Your task to perform on an android device: Go to Yahoo.com Image 0: 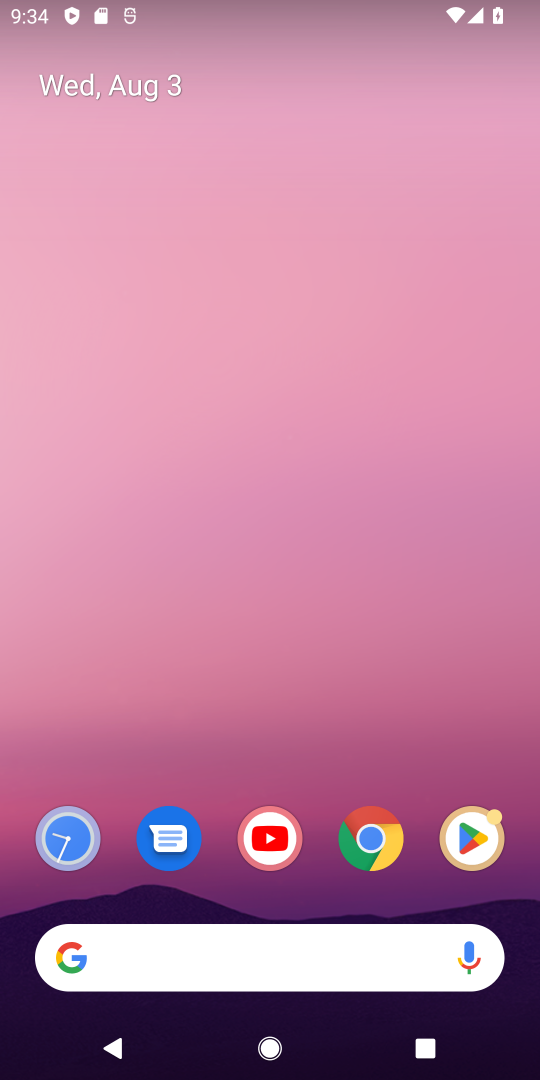
Step 0: drag from (340, 851) to (370, 346)
Your task to perform on an android device: Go to Yahoo.com Image 1: 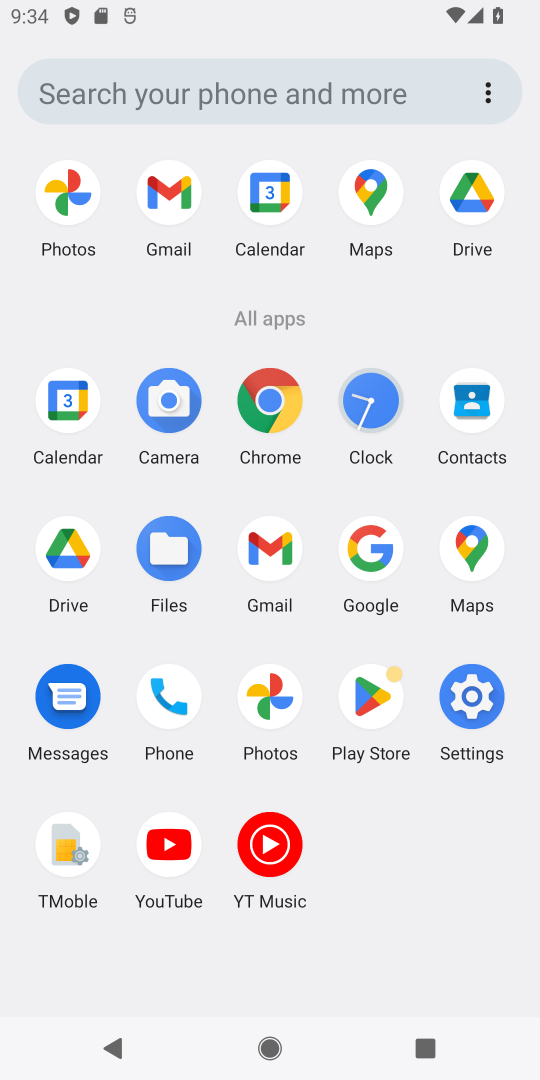
Step 1: click (282, 397)
Your task to perform on an android device: Go to Yahoo.com Image 2: 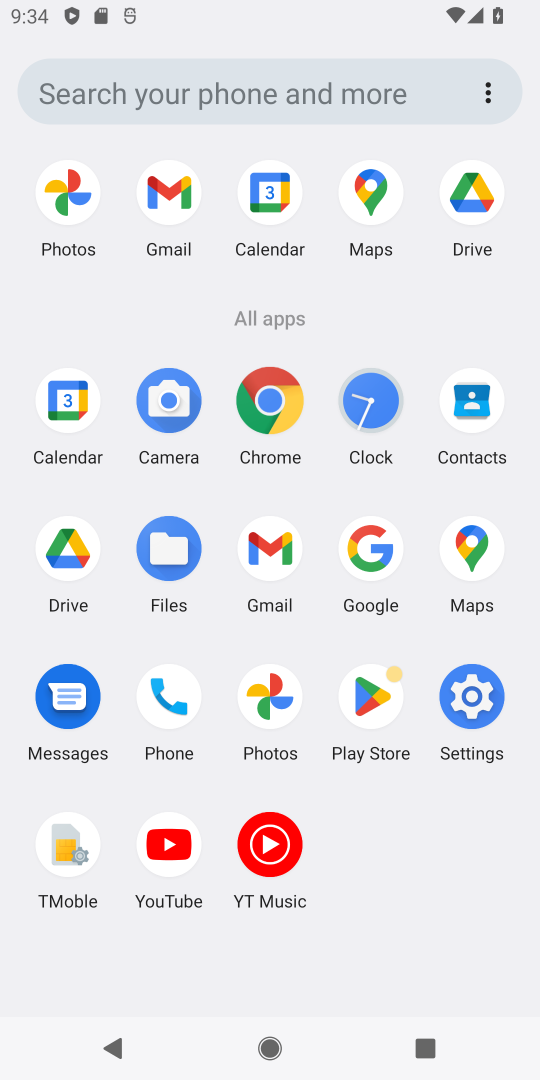
Step 2: click (283, 395)
Your task to perform on an android device: Go to Yahoo.com Image 3: 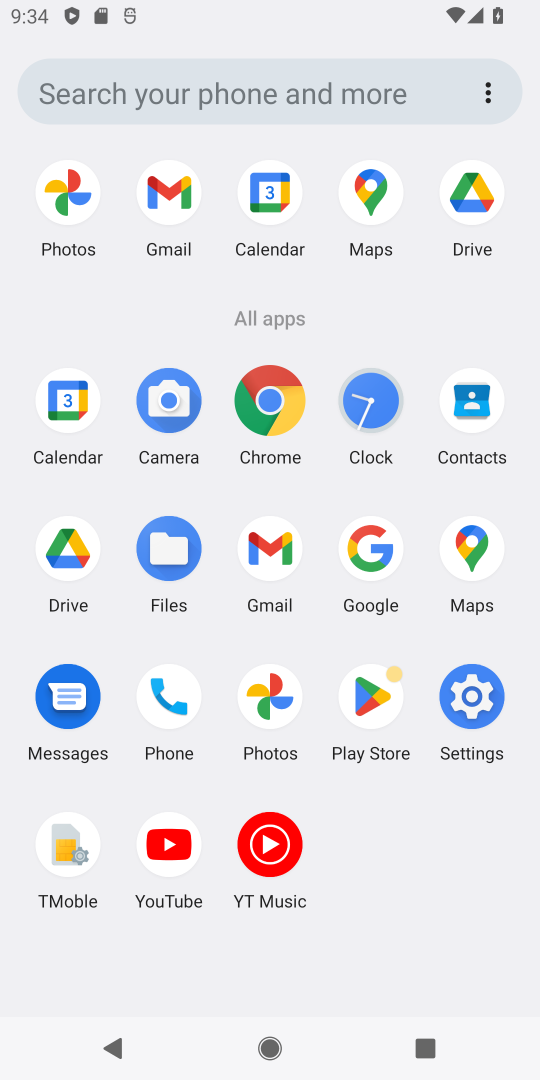
Step 3: click (286, 400)
Your task to perform on an android device: Go to Yahoo.com Image 4: 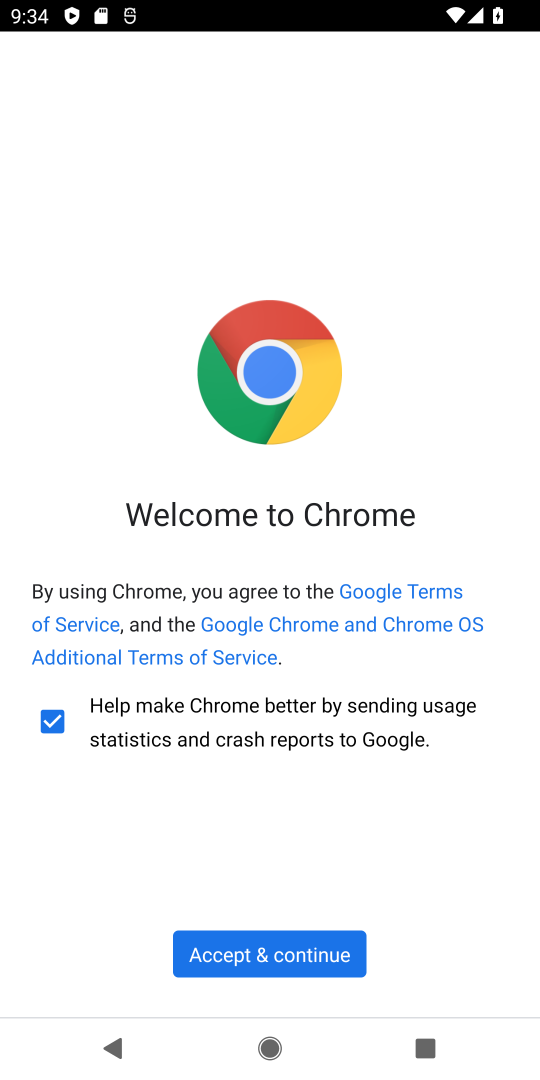
Step 4: click (296, 955)
Your task to perform on an android device: Go to Yahoo.com Image 5: 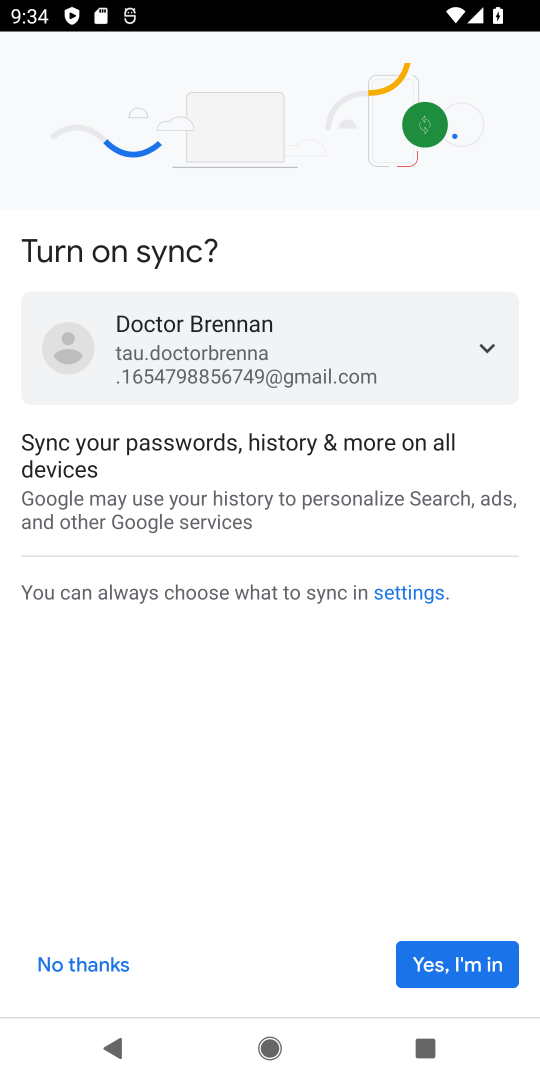
Step 5: click (65, 953)
Your task to perform on an android device: Go to Yahoo.com Image 6: 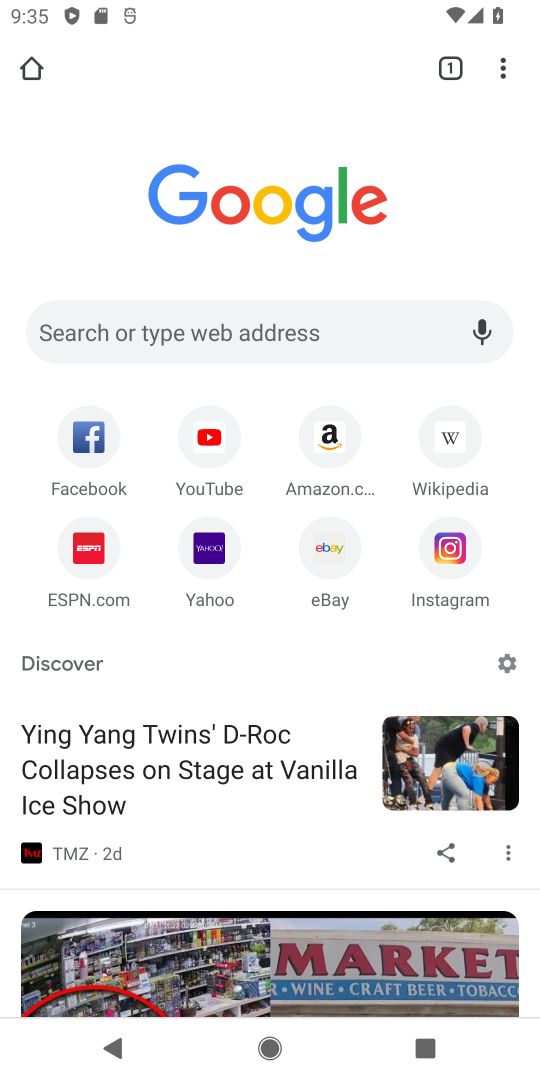
Step 6: click (192, 538)
Your task to perform on an android device: Go to Yahoo.com Image 7: 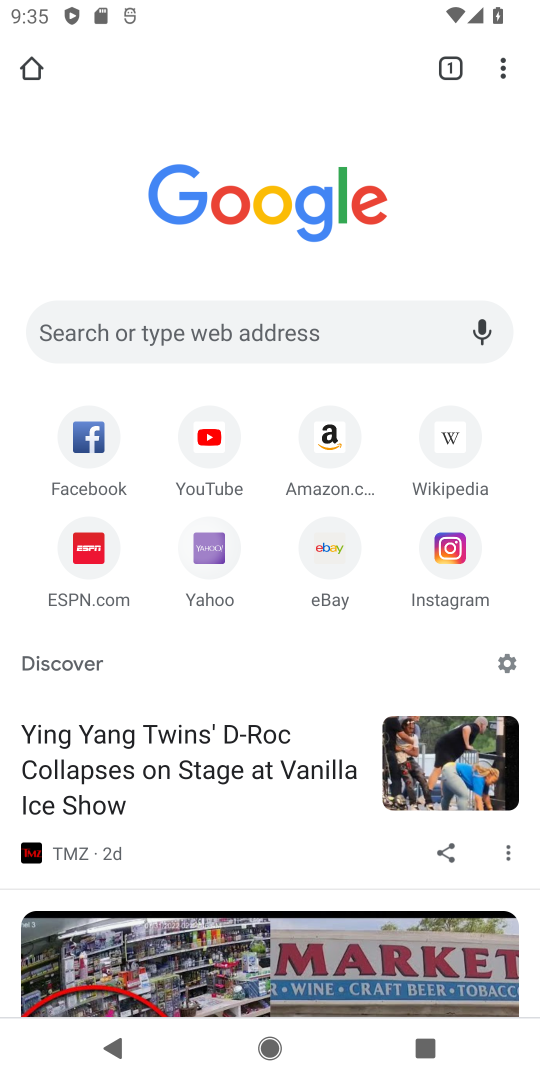
Step 7: click (195, 538)
Your task to perform on an android device: Go to Yahoo.com Image 8: 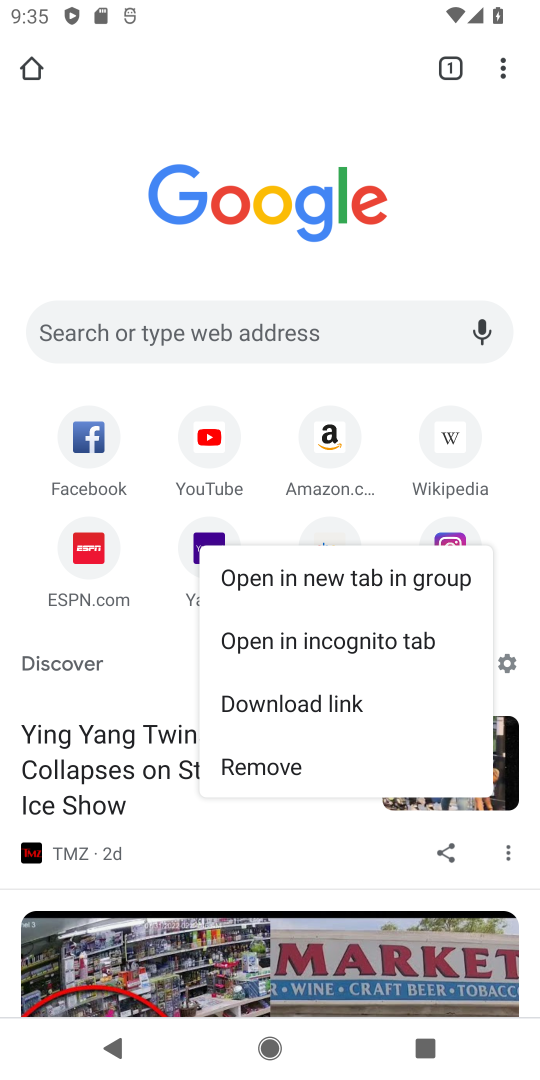
Step 8: click (172, 562)
Your task to perform on an android device: Go to Yahoo.com Image 9: 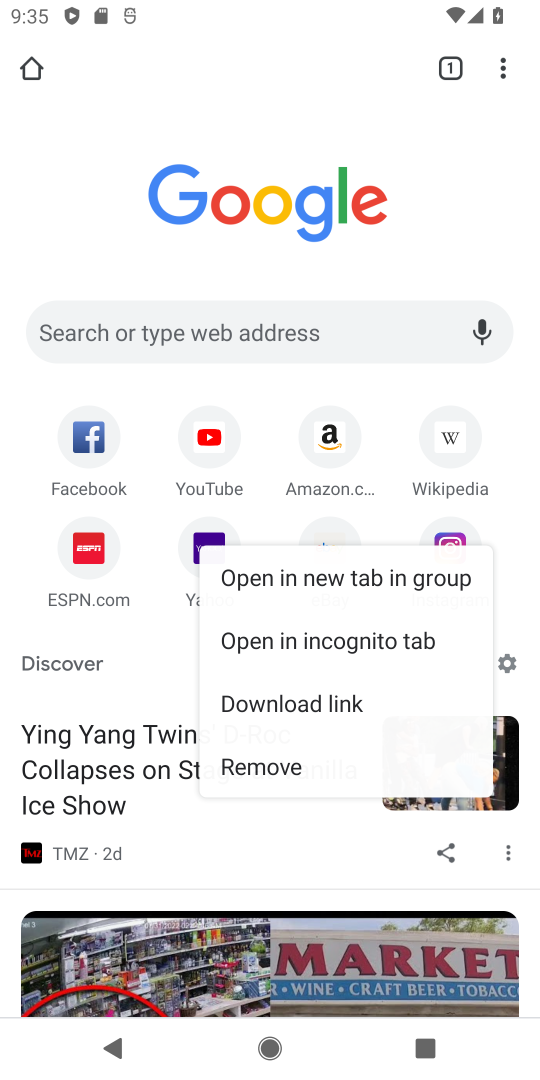
Step 9: click (213, 540)
Your task to perform on an android device: Go to Yahoo.com Image 10: 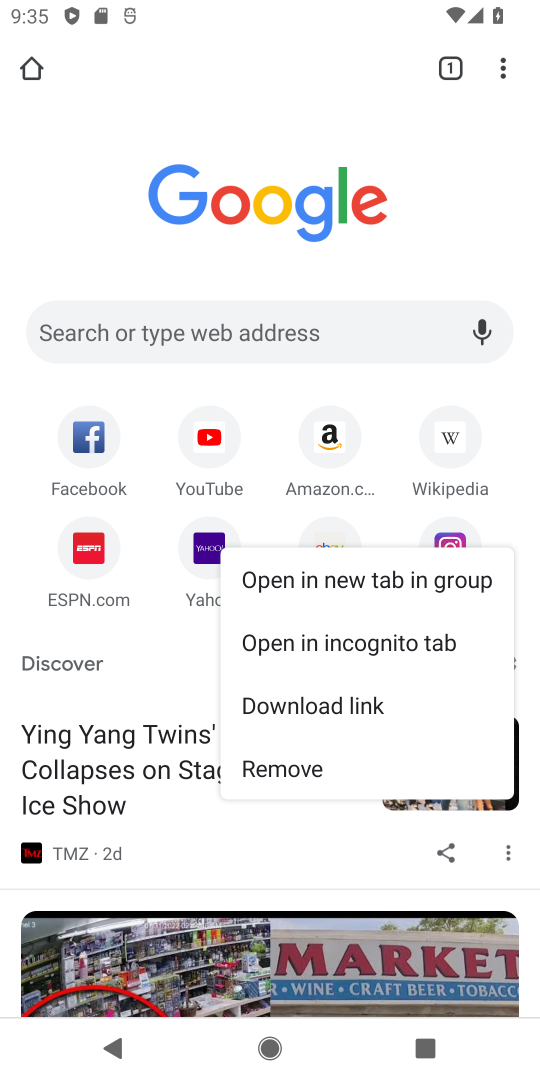
Step 10: task complete